Your task to perform on an android device: turn off improve location accuracy Image 0: 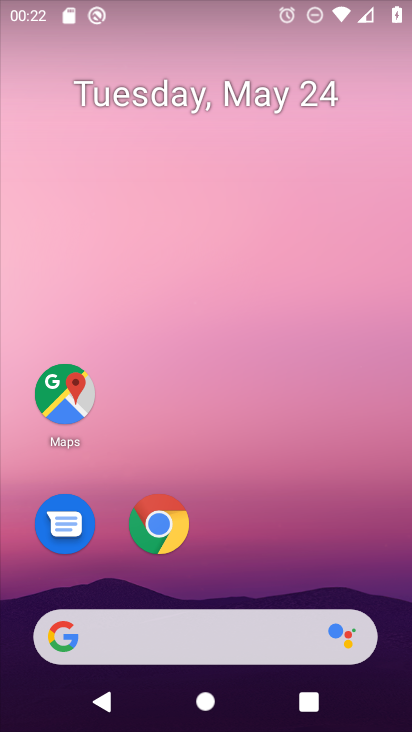
Step 0: drag from (225, 585) to (245, 89)
Your task to perform on an android device: turn off improve location accuracy Image 1: 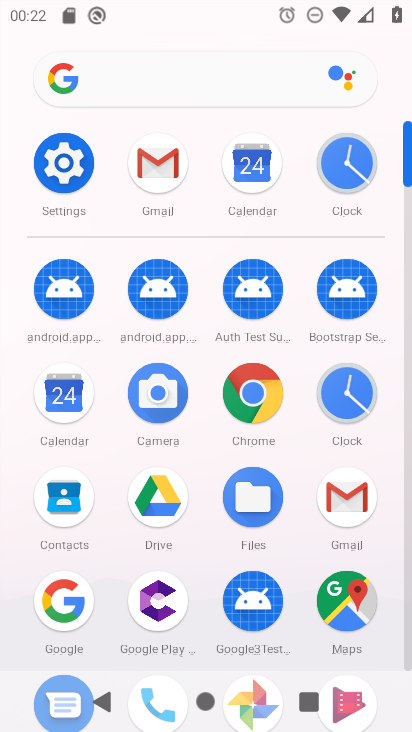
Step 1: click (71, 177)
Your task to perform on an android device: turn off improve location accuracy Image 2: 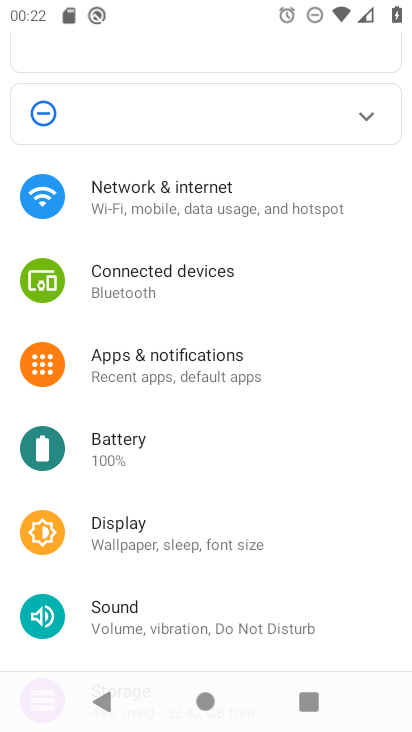
Step 2: drag from (246, 599) to (256, 297)
Your task to perform on an android device: turn off improve location accuracy Image 3: 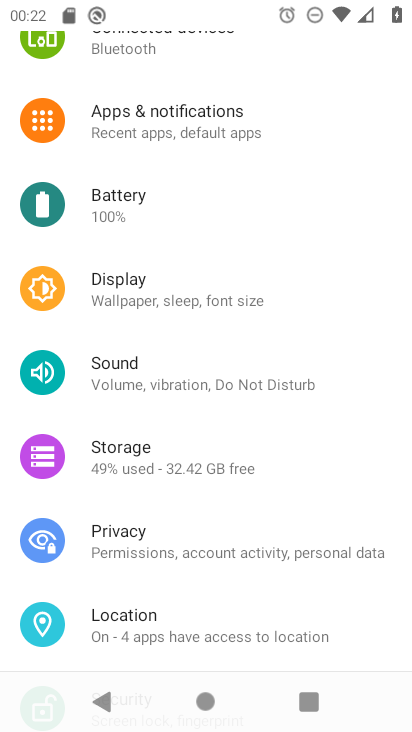
Step 3: click (192, 638)
Your task to perform on an android device: turn off improve location accuracy Image 4: 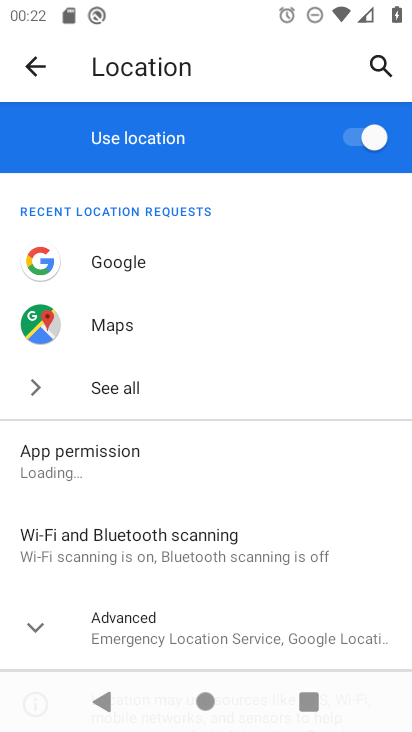
Step 4: click (193, 637)
Your task to perform on an android device: turn off improve location accuracy Image 5: 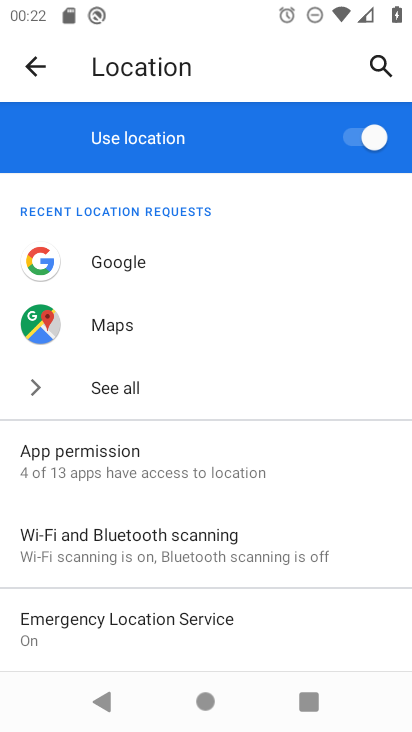
Step 5: drag from (204, 608) to (238, 382)
Your task to perform on an android device: turn off improve location accuracy Image 6: 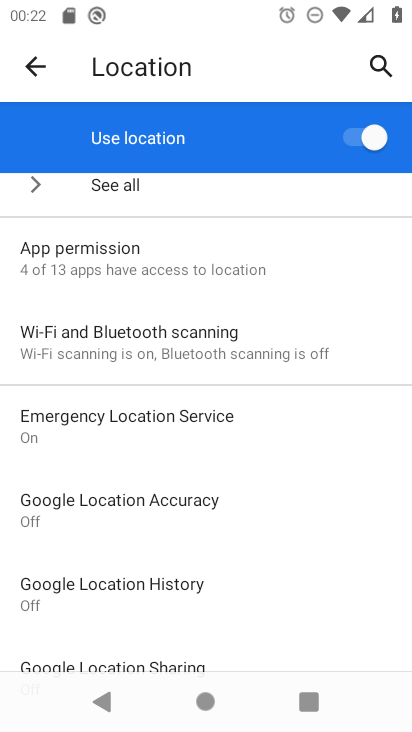
Step 6: click (198, 520)
Your task to perform on an android device: turn off improve location accuracy Image 7: 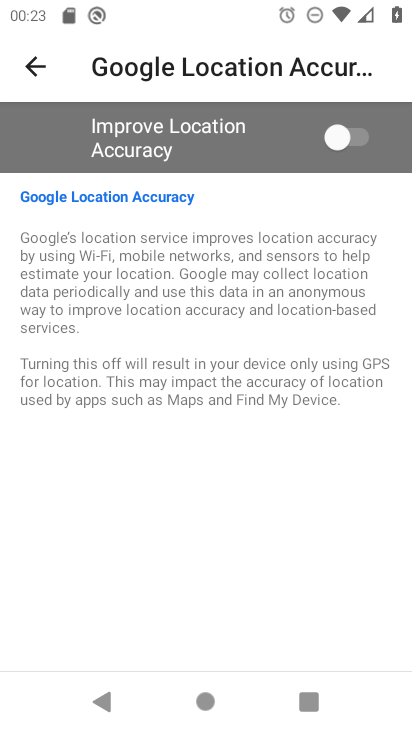
Step 7: task complete